Your task to perform on an android device: turn pop-ups on in chrome Image 0: 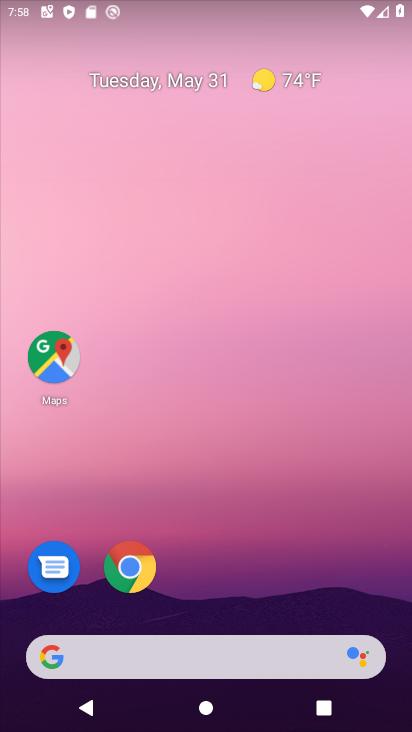
Step 0: drag from (241, 658) to (125, 63)
Your task to perform on an android device: turn pop-ups on in chrome Image 1: 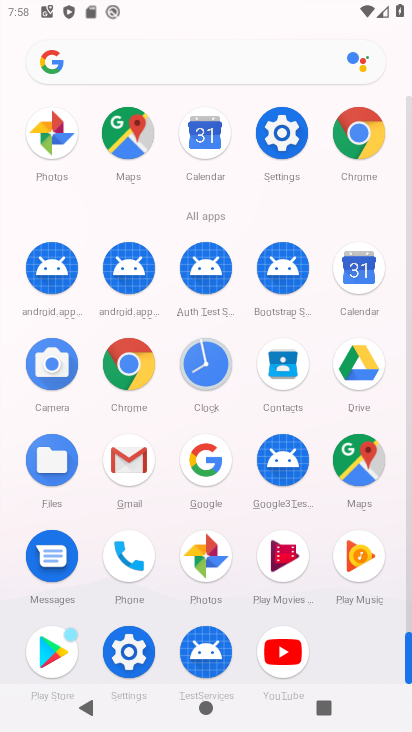
Step 1: click (355, 130)
Your task to perform on an android device: turn pop-ups on in chrome Image 2: 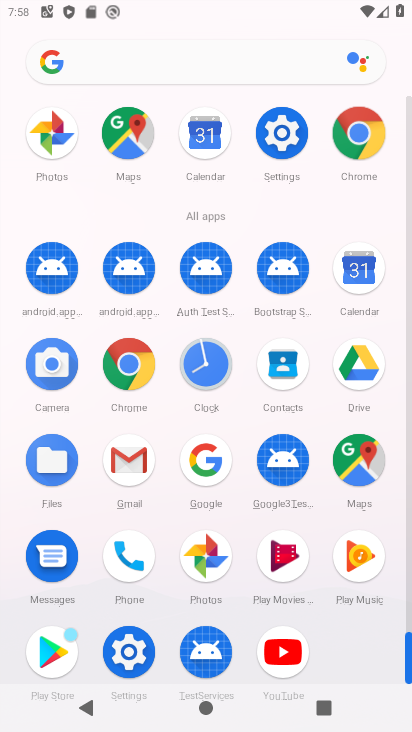
Step 2: click (355, 130)
Your task to perform on an android device: turn pop-ups on in chrome Image 3: 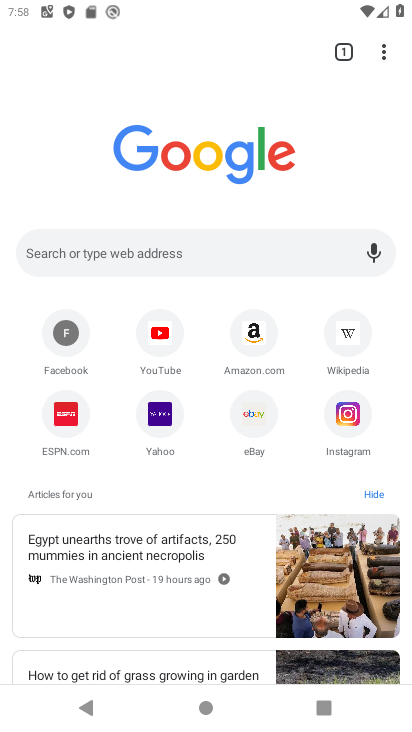
Step 3: drag from (385, 52) to (177, 438)
Your task to perform on an android device: turn pop-ups on in chrome Image 4: 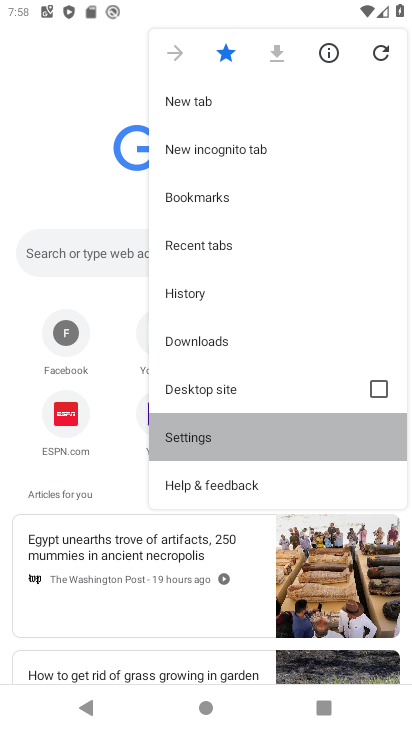
Step 4: click (177, 438)
Your task to perform on an android device: turn pop-ups on in chrome Image 5: 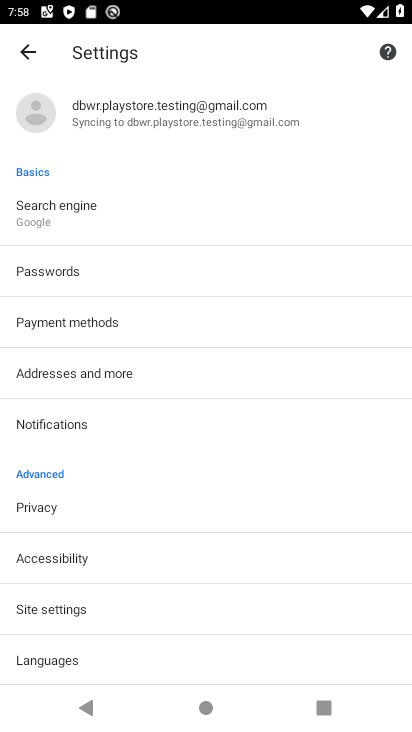
Step 5: click (49, 608)
Your task to perform on an android device: turn pop-ups on in chrome Image 6: 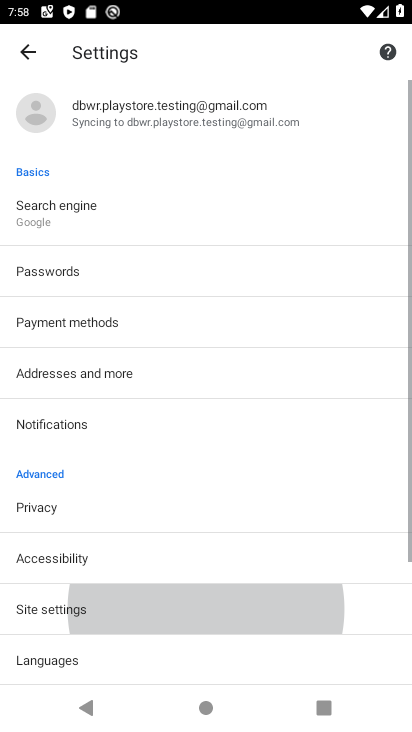
Step 6: click (49, 608)
Your task to perform on an android device: turn pop-ups on in chrome Image 7: 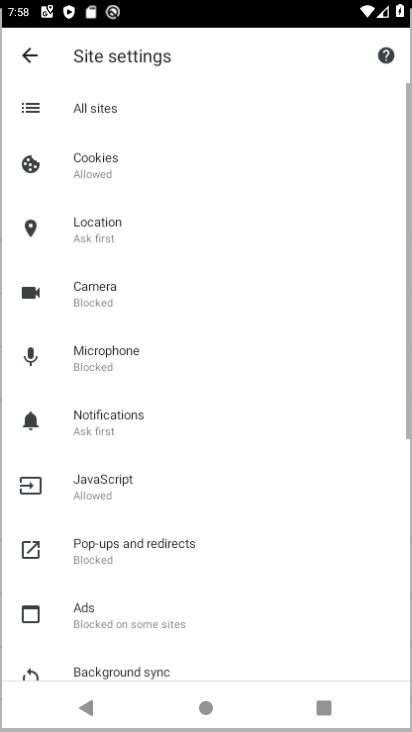
Step 7: click (49, 608)
Your task to perform on an android device: turn pop-ups on in chrome Image 8: 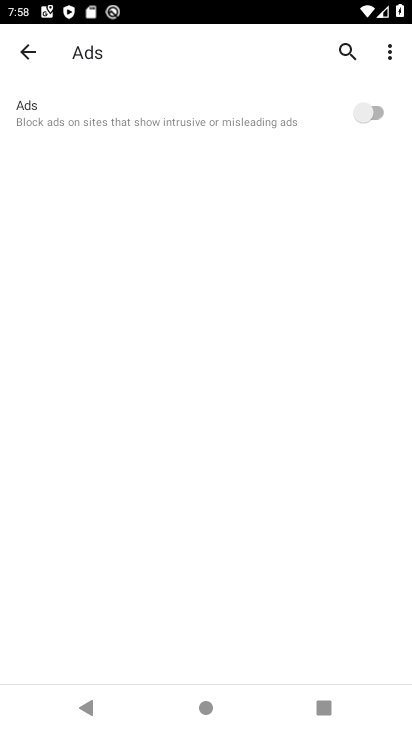
Step 8: click (24, 54)
Your task to perform on an android device: turn pop-ups on in chrome Image 9: 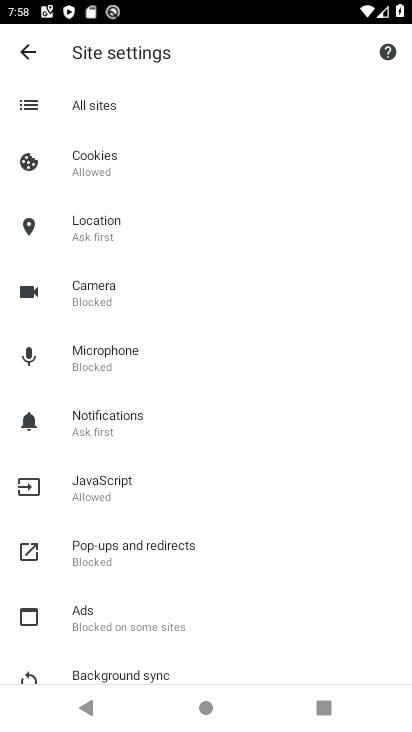
Step 9: click (102, 556)
Your task to perform on an android device: turn pop-ups on in chrome Image 10: 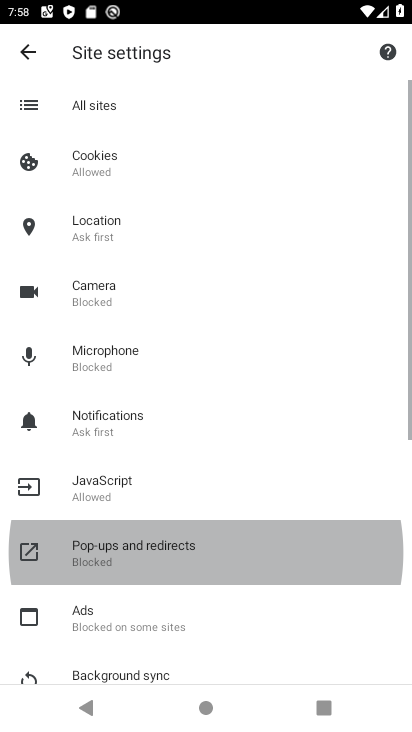
Step 10: click (102, 556)
Your task to perform on an android device: turn pop-ups on in chrome Image 11: 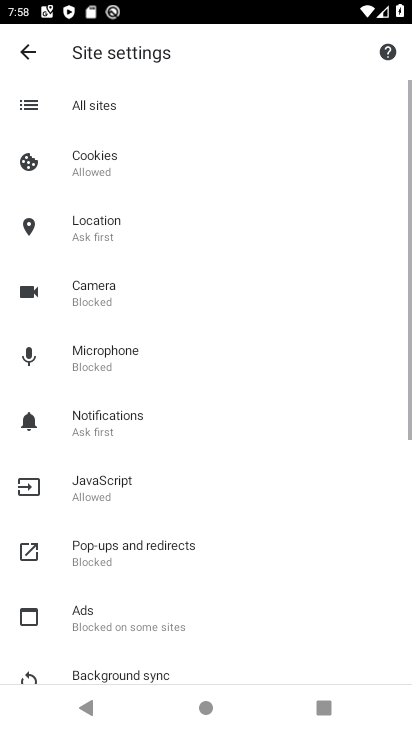
Step 11: click (102, 556)
Your task to perform on an android device: turn pop-ups on in chrome Image 12: 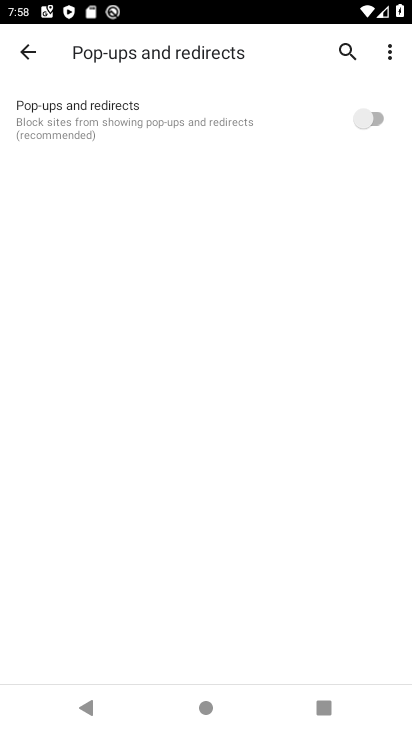
Step 12: click (364, 112)
Your task to perform on an android device: turn pop-ups on in chrome Image 13: 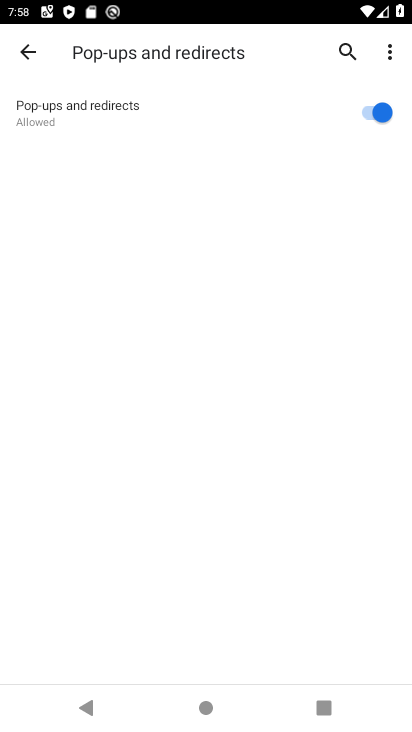
Step 13: task complete